Your task to perform on an android device: delete the emails in spam in the gmail app Image 0: 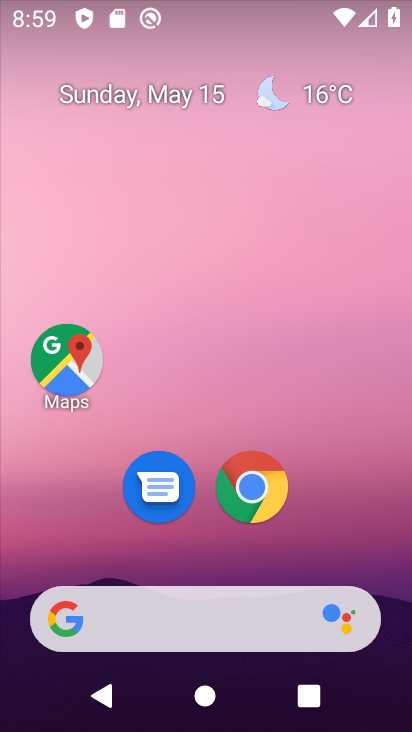
Step 0: drag from (314, 538) to (327, 75)
Your task to perform on an android device: delete the emails in spam in the gmail app Image 1: 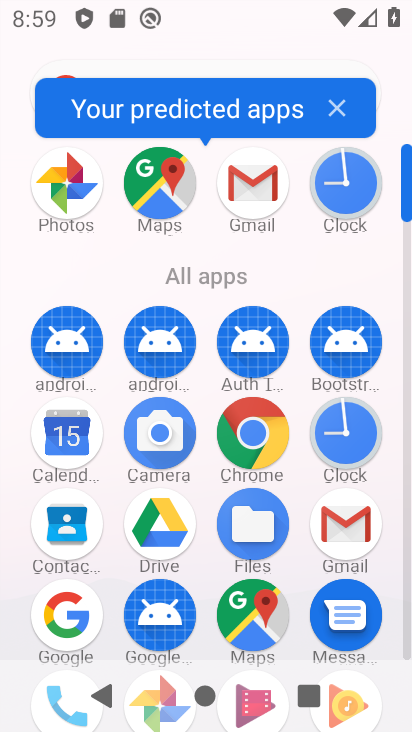
Step 1: click (251, 186)
Your task to perform on an android device: delete the emails in spam in the gmail app Image 2: 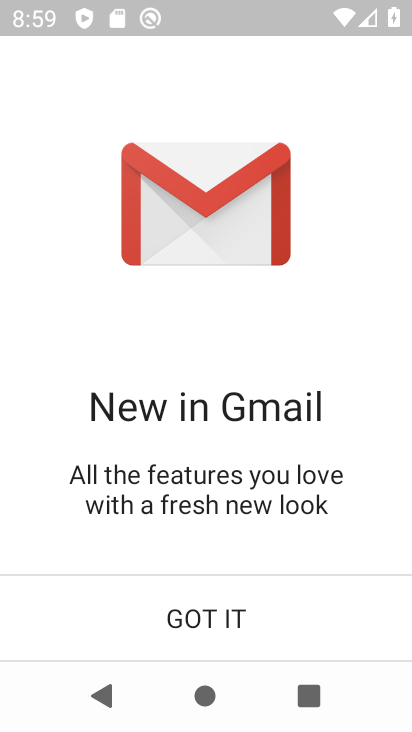
Step 2: click (224, 617)
Your task to perform on an android device: delete the emails in spam in the gmail app Image 3: 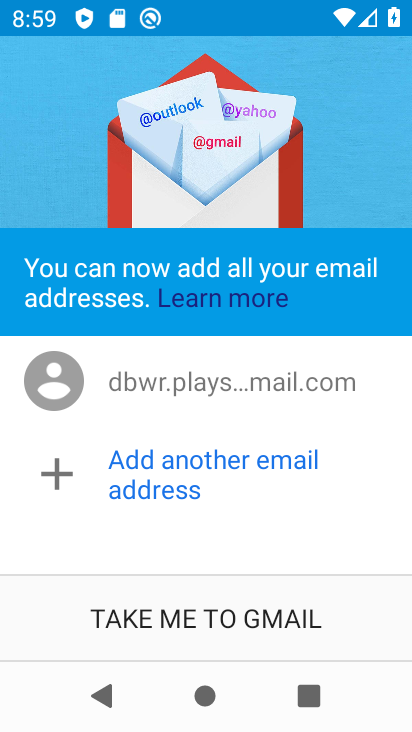
Step 3: click (290, 617)
Your task to perform on an android device: delete the emails in spam in the gmail app Image 4: 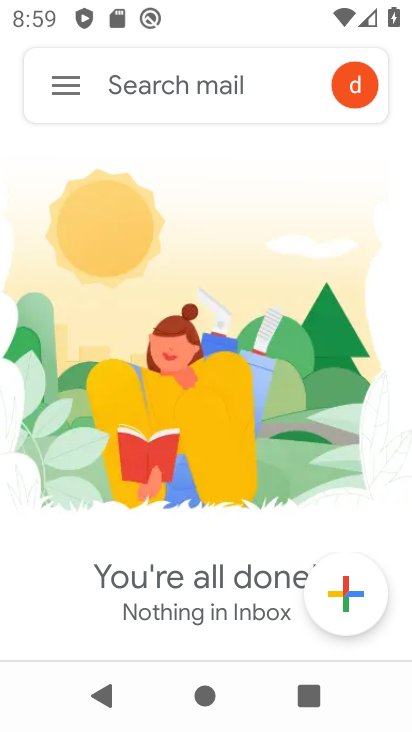
Step 4: click (59, 85)
Your task to perform on an android device: delete the emails in spam in the gmail app Image 5: 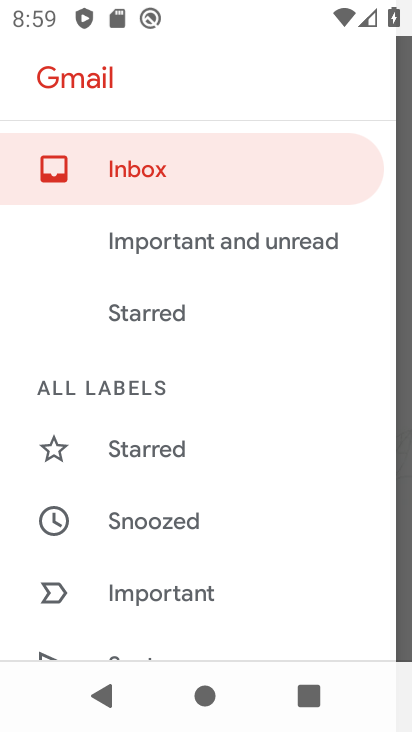
Step 5: drag from (278, 405) to (307, 144)
Your task to perform on an android device: delete the emails in spam in the gmail app Image 6: 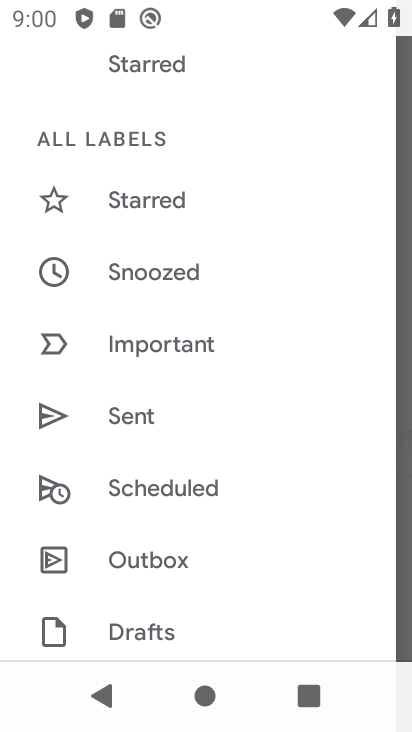
Step 6: drag from (272, 490) to (321, 154)
Your task to perform on an android device: delete the emails in spam in the gmail app Image 7: 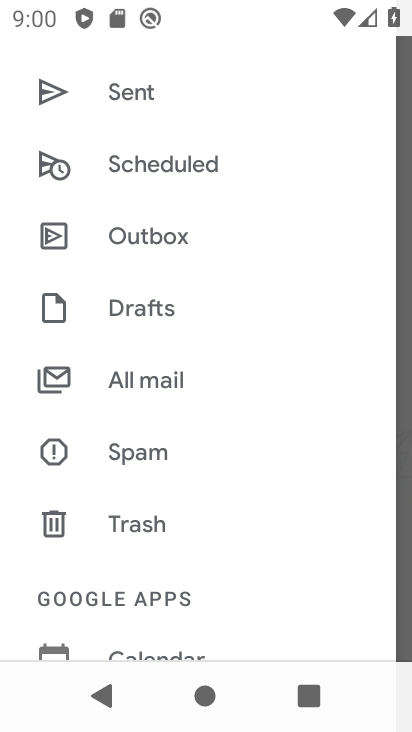
Step 7: click (132, 449)
Your task to perform on an android device: delete the emails in spam in the gmail app Image 8: 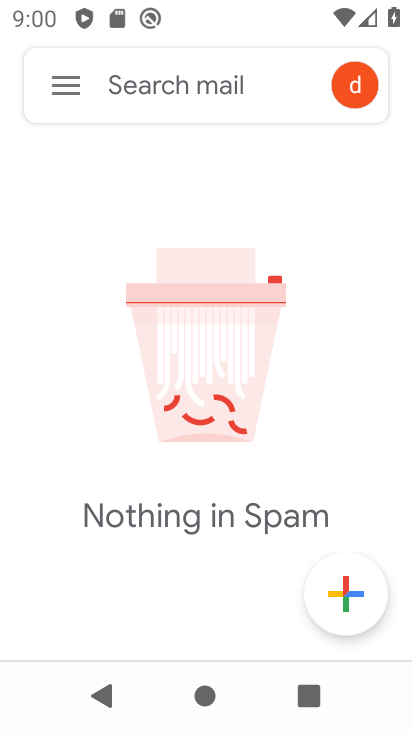
Step 8: task complete